Your task to perform on an android device: Open Chrome and go to the settings page Image 0: 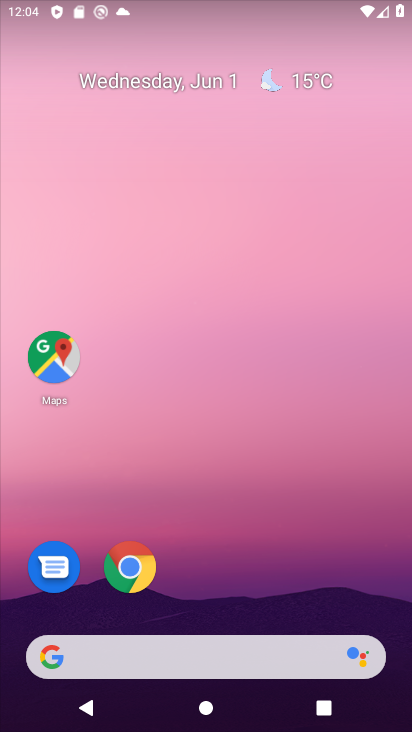
Step 0: click (134, 577)
Your task to perform on an android device: Open Chrome and go to the settings page Image 1: 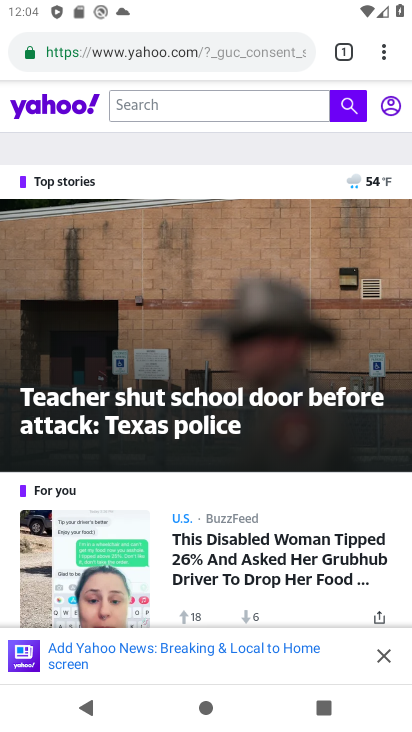
Step 1: drag from (377, 53) to (196, 598)
Your task to perform on an android device: Open Chrome and go to the settings page Image 2: 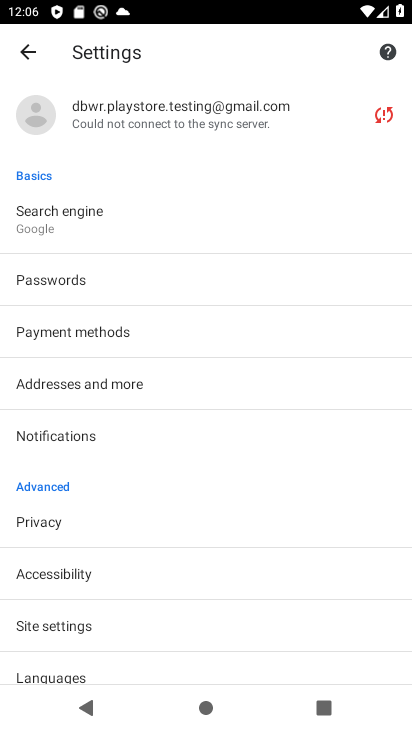
Step 2: click (11, 485)
Your task to perform on an android device: Open Chrome and go to the settings page Image 3: 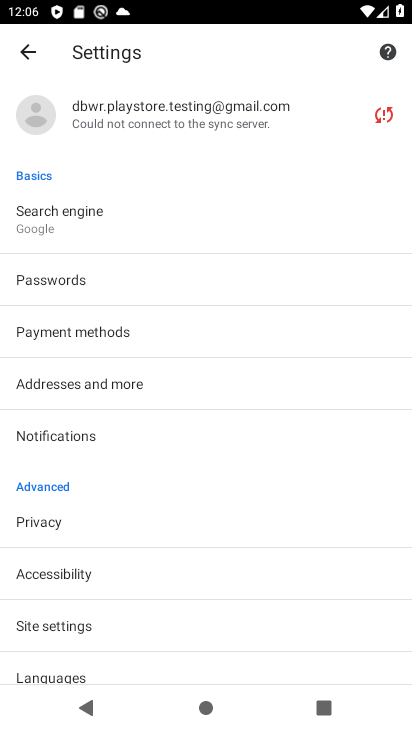
Step 3: press home button
Your task to perform on an android device: Open Chrome and go to the settings page Image 4: 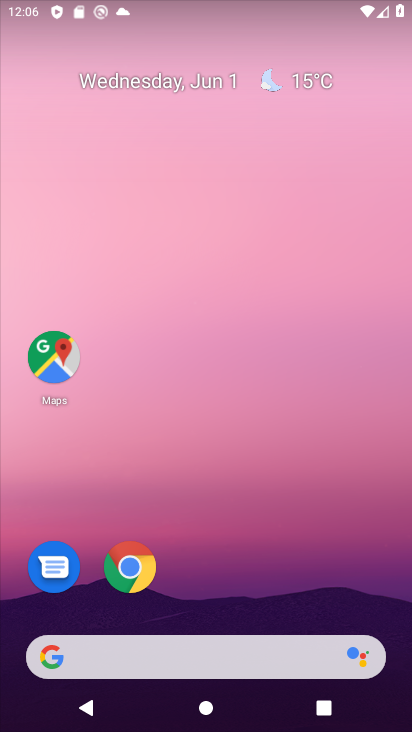
Step 4: click (111, 565)
Your task to perform on an android device: Open Chrome and go to the settings page Image 5: 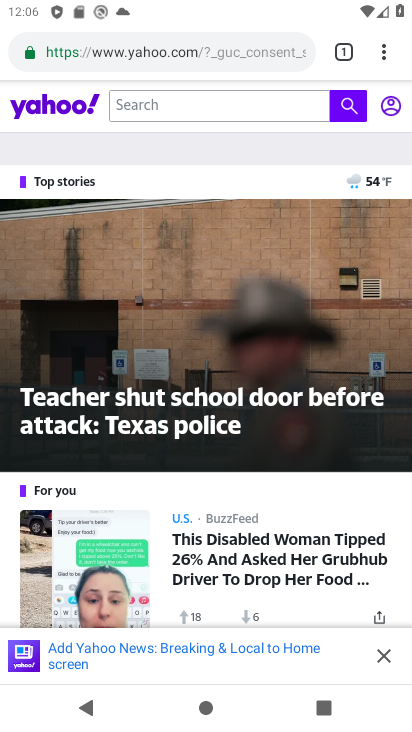
Step 5: task complete